Your task to perform on an android device: Find coffee shops on Maps Image 0: 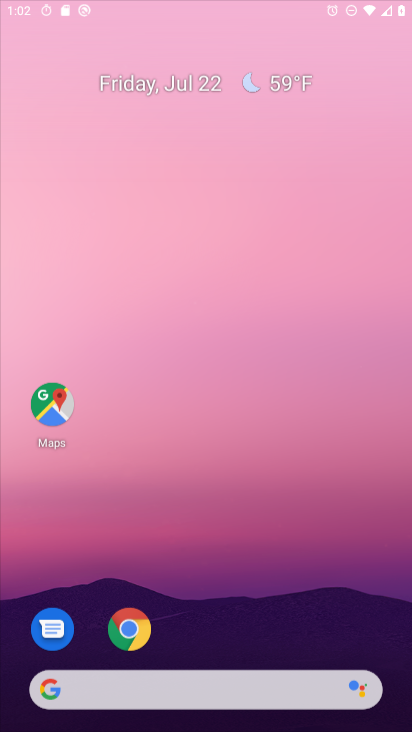
Step 0: press home button
Your task to perform on an android device: Find coffee shops on Maps Image 1: 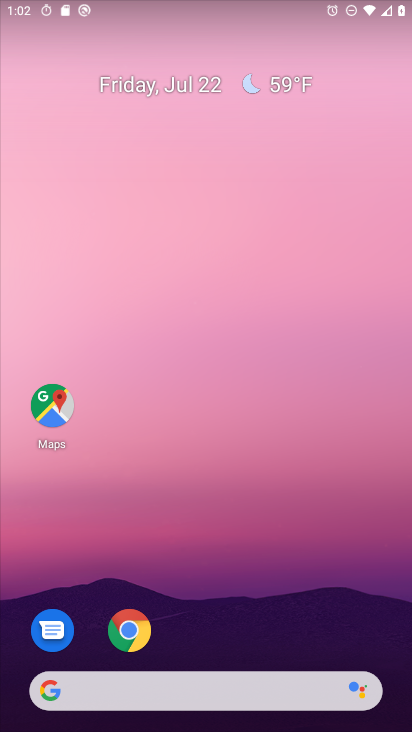
Step 1: drag from (203, 629) to (300, 188)
Your task to perform on an android device: Find coffee shops on Maps Image 2: 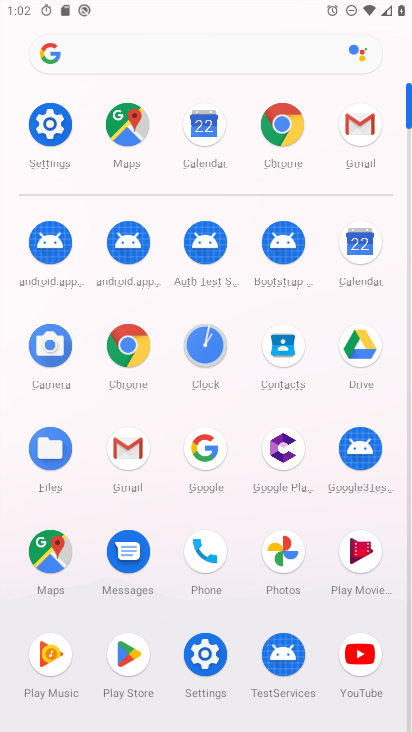
Step 2: click (131, 128)
Your task to perform on an android device: Find coffee shops on Maps Image 3: 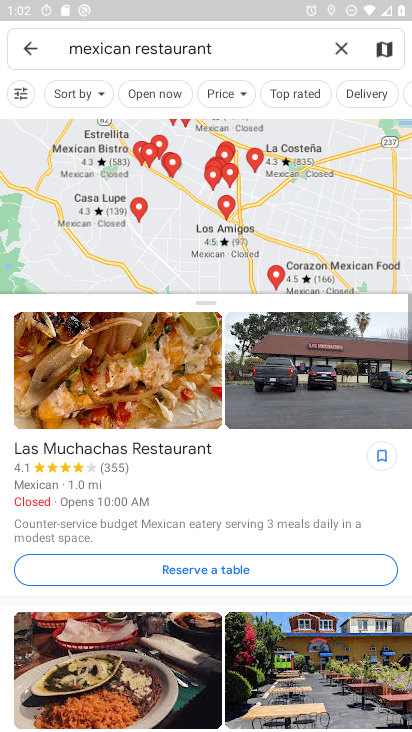
Step 3: click (338, 56)
Your task to perform on an android device: Find coffee shops on Maps Image 4: 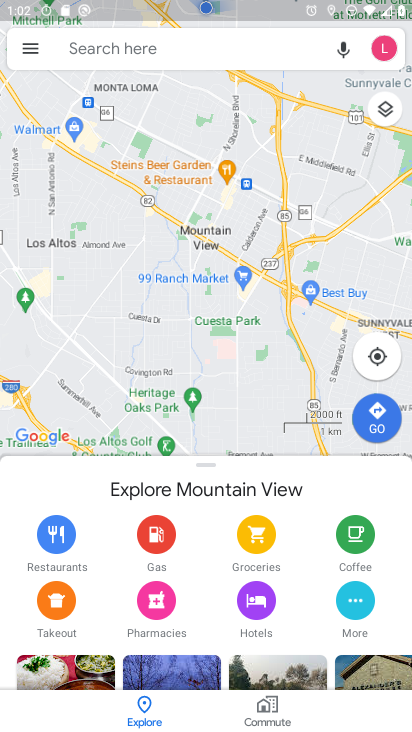
Step 4: click (71, 44)
Your task to perform on an android device: Find coffee shops on Maps Image 5: 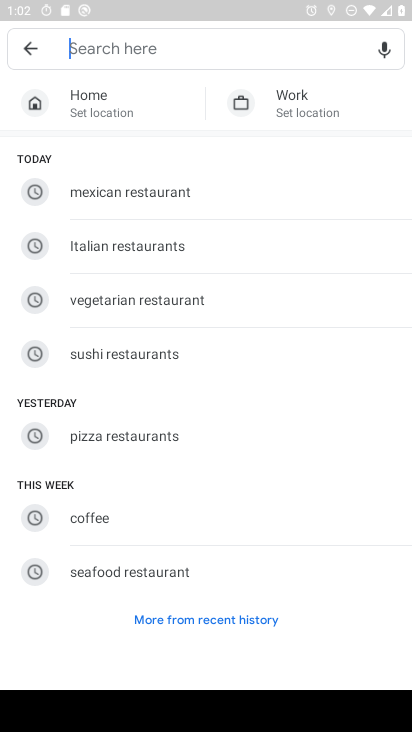
Step 5: type "coffee shops"
Your task to perform on an android device: Find coffee shops on Maps Image 6: 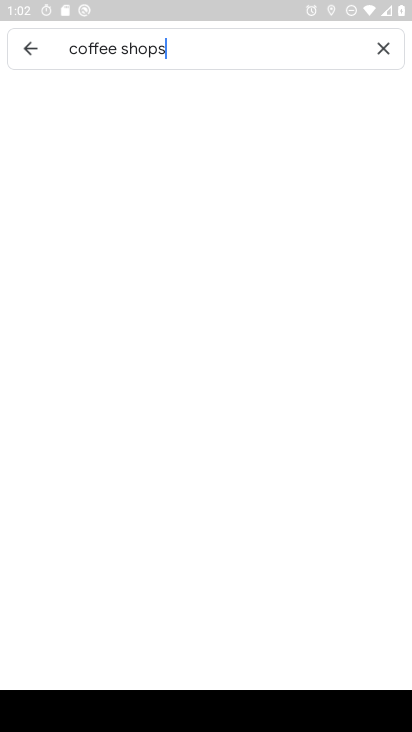
Step 6: press enter
Your task to perform on an android device: Find coffee shops on Maps Image 7: 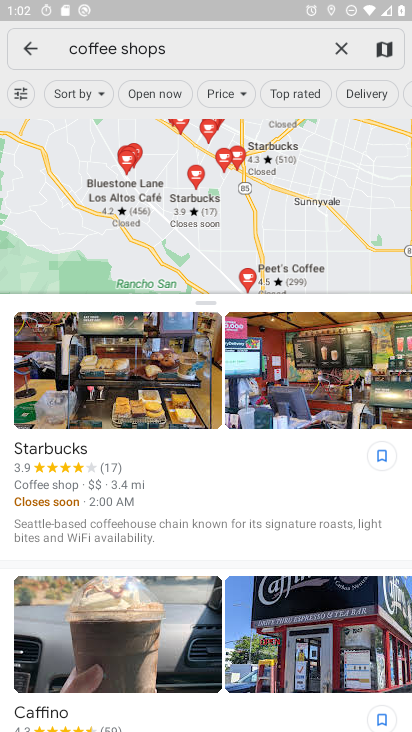
Step 7: task complete